Your task to perform on an android device: open app "Facebook Messenger" (install if not already installed) Image 0: 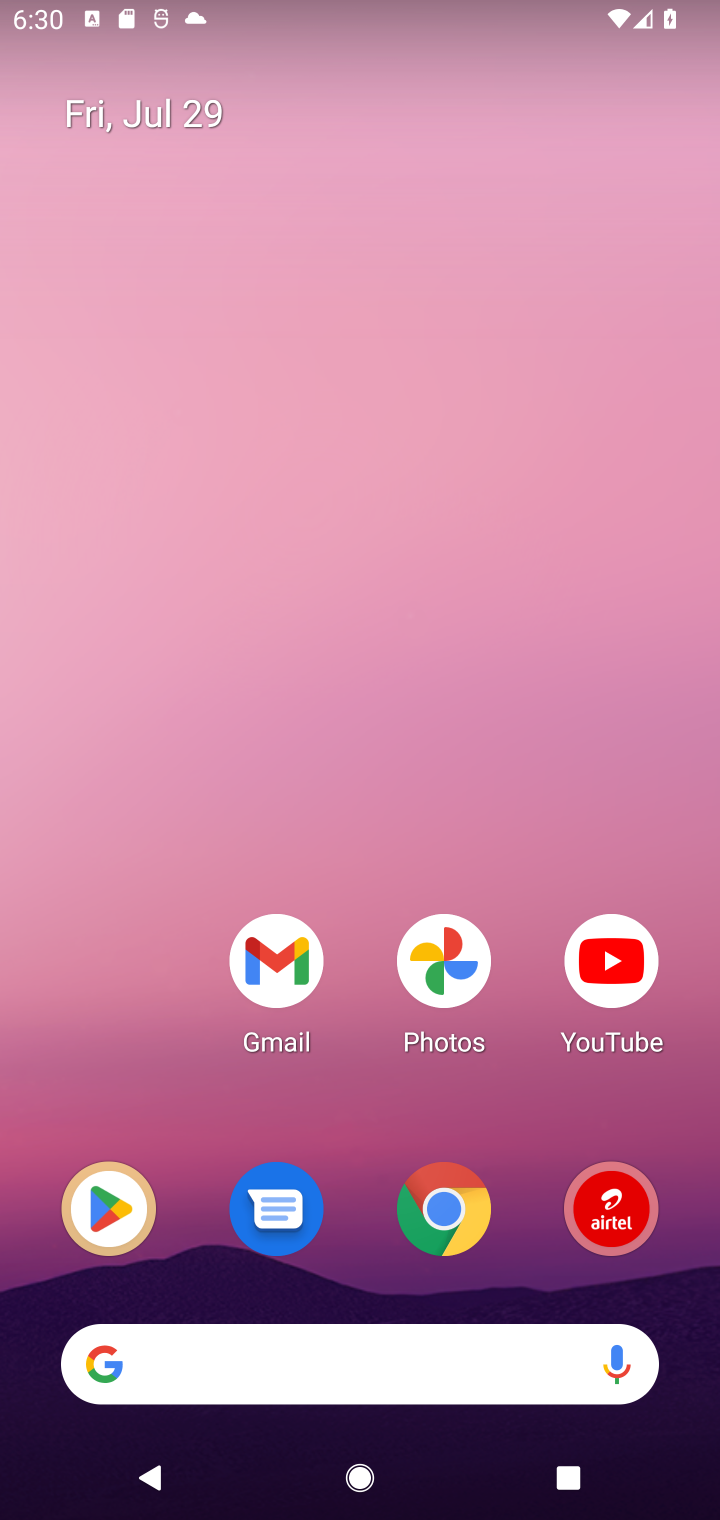
Step 0: click (95, 1239)
Your task to perform on an android device: open app "Facebook Messenger" (install if not already installed) Image 1: 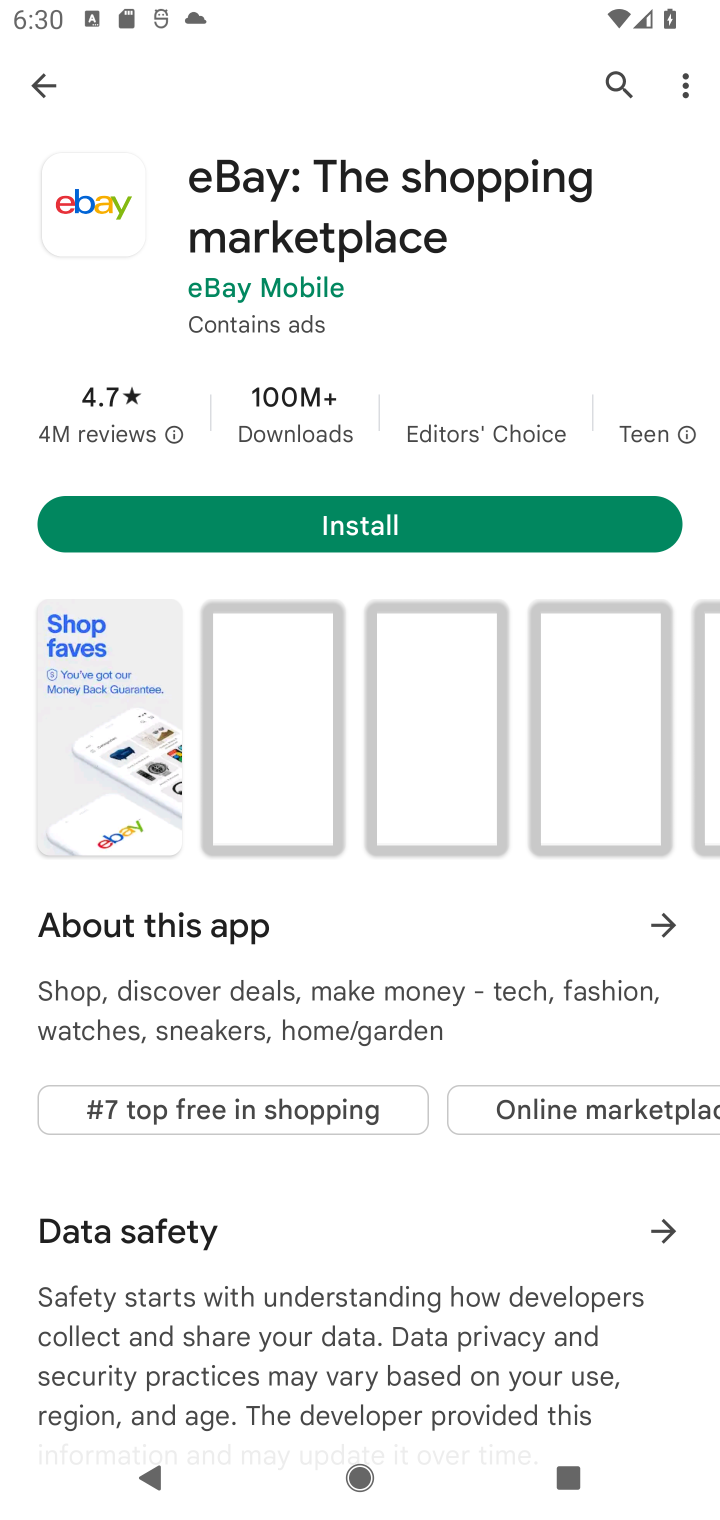
Step 1: click (601, 88)
Your task to perform on an android device: open app "Facebook Messenger" (install if not already installed) Image 2: 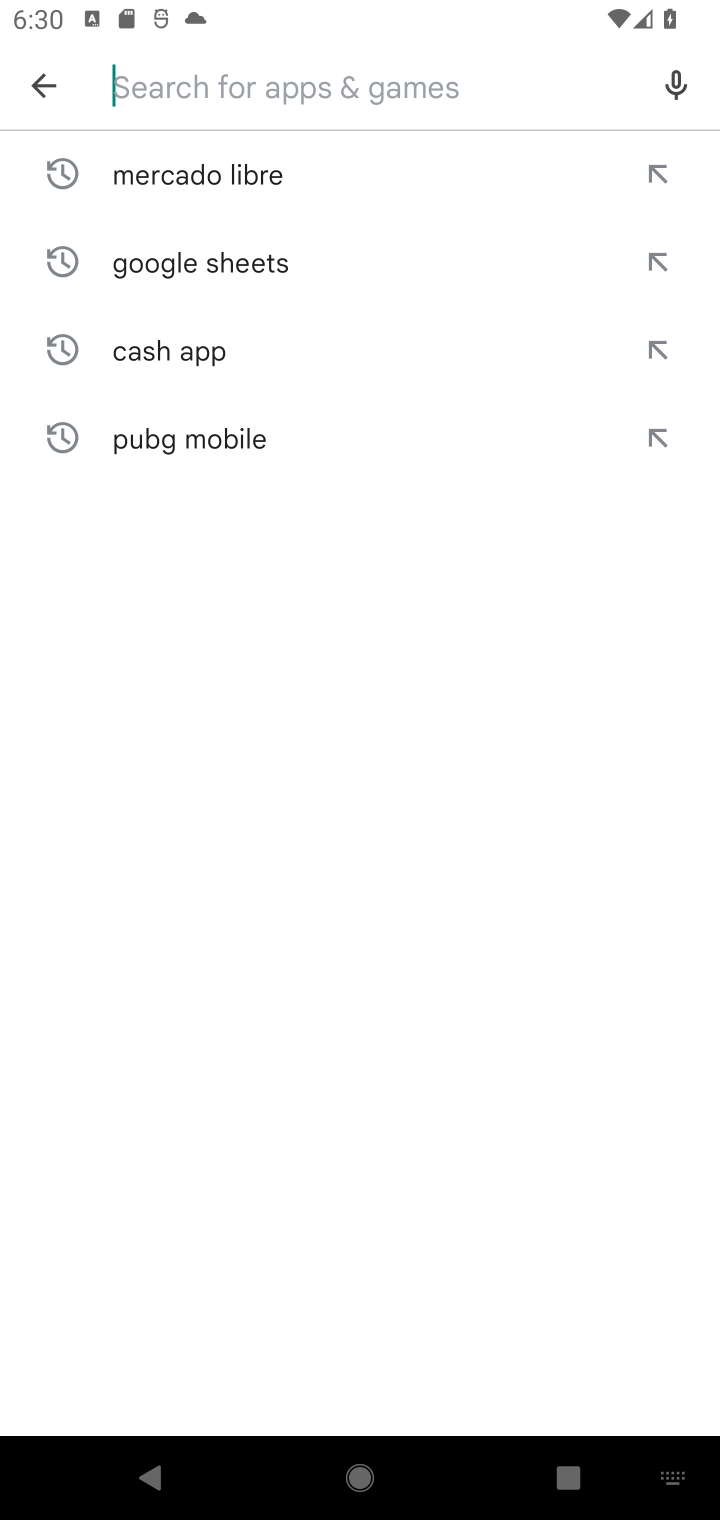
Step 2: type "Facebook Messenger"
Your task to perform on an android device: open app "Facebook Messenger" (install if not already installed) Image 3: 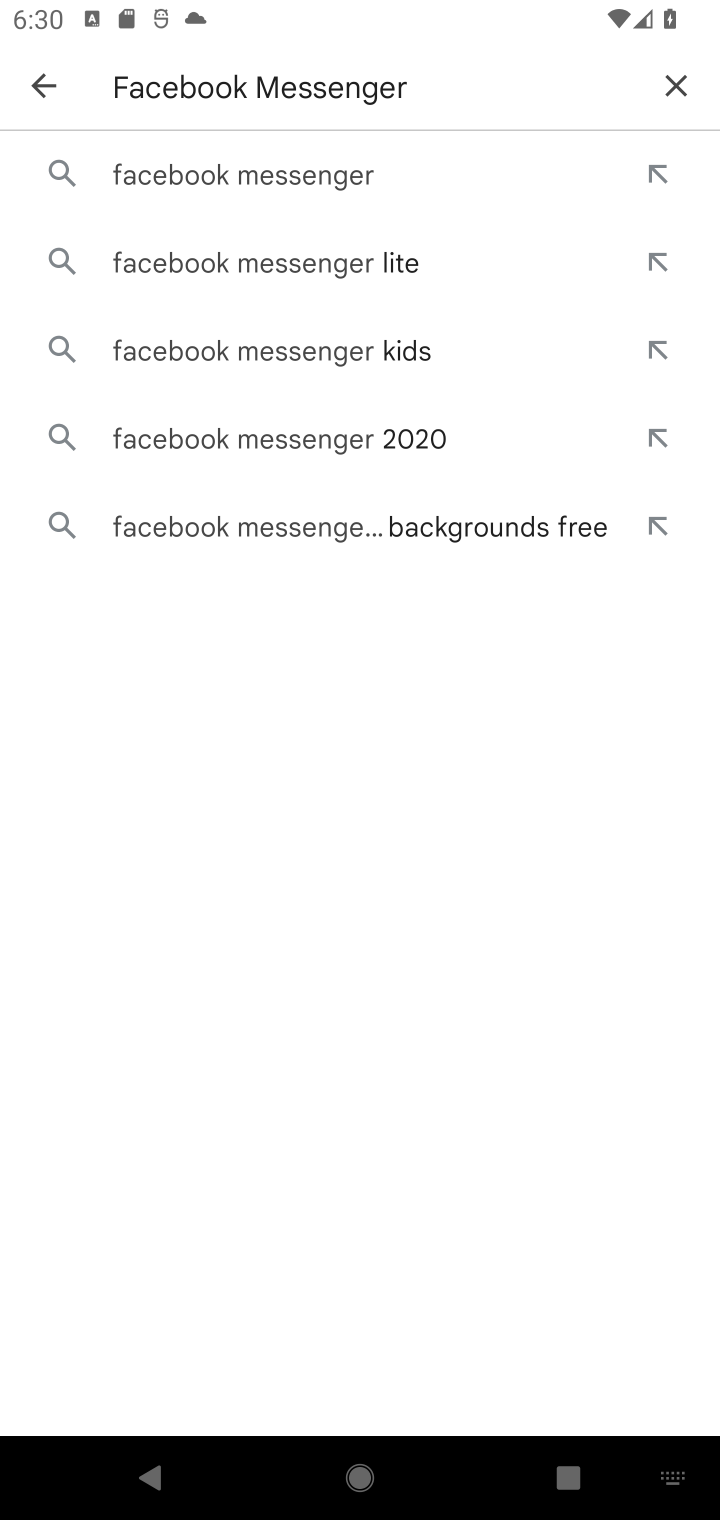
Step 3: click (218, 181)
Your task to perform on an android device: open app "Facebook Messenger" (install if not already installed) Image 4: 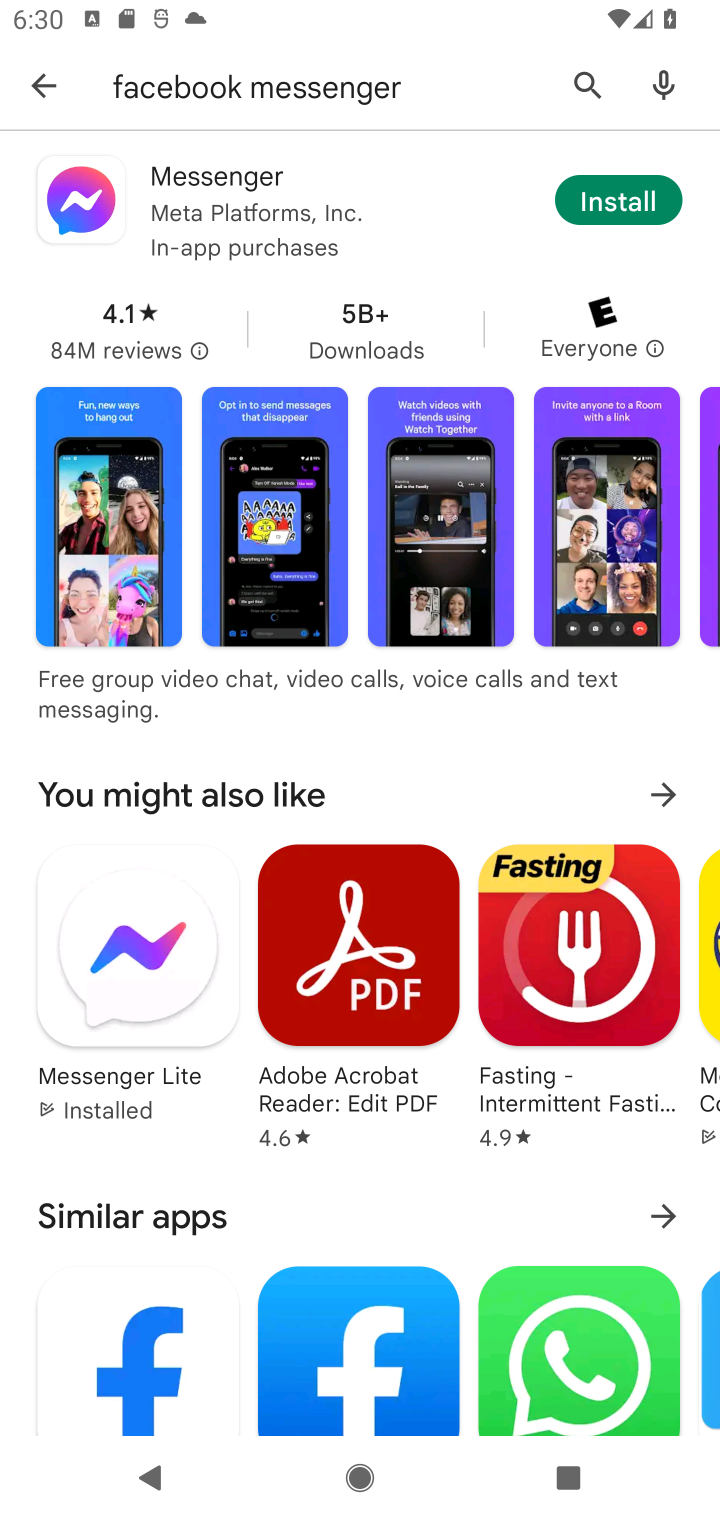
Step 4: click (640, 213)
Your task to perform on an android device: open app "Facebook Messenger" (install if not already installed) Image 5: 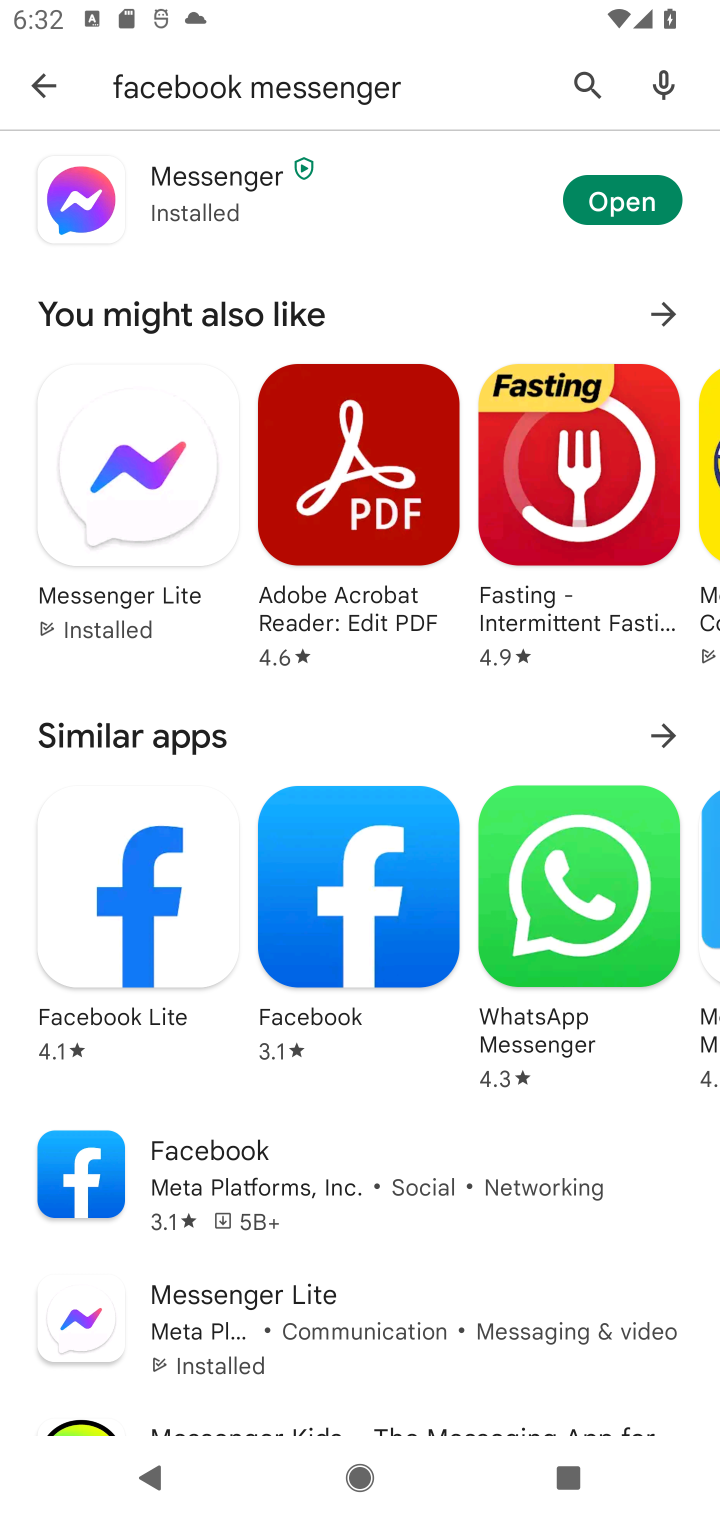
Step 5: click (605, 195)
Your task to perform on an android device: open app "Facebook Messenger" (install if not already installed) Image 6: 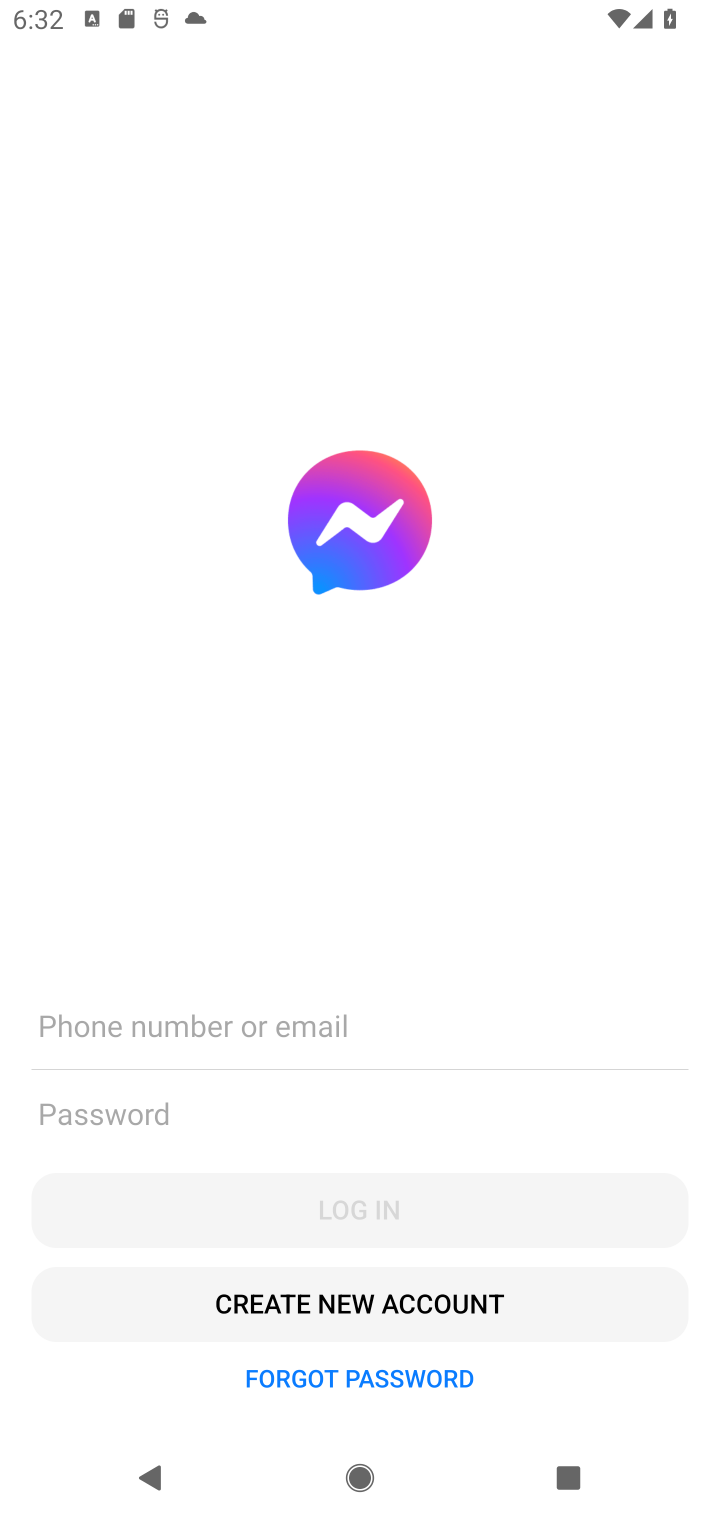
Step 6: task complete